Your task to perform on an android device: toggle pop-ups in chrome Image 0: 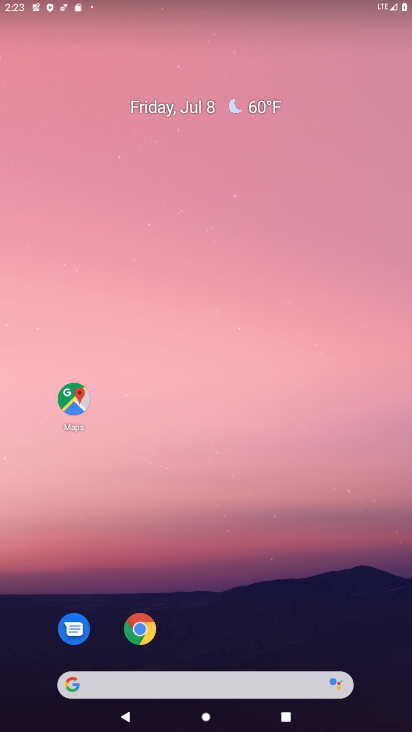
Step 0: click (219, 224)
Your task to perform on an android device: toggle pop-ups in chrome Image 1: 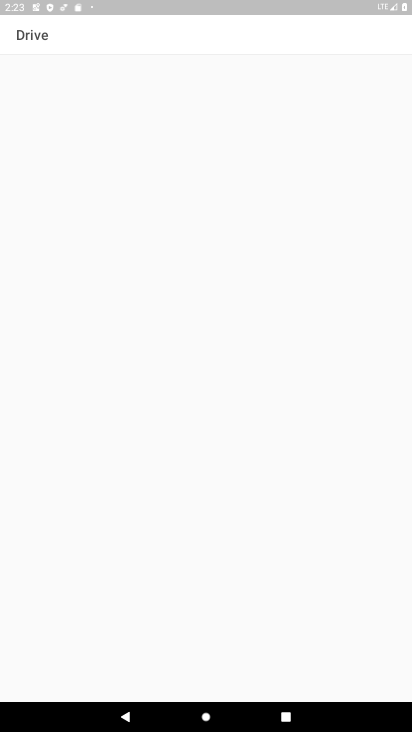
Step 1: press home button
Your task to perform on an android device: toggle pop-ups in chrome Image 2: 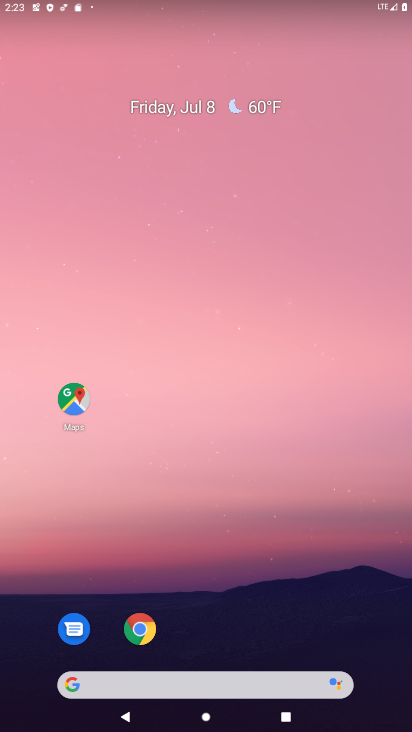
Step 2: click (155, 627)
Your task to perform on an android device: toggle pop-ups in chrome Image 3: 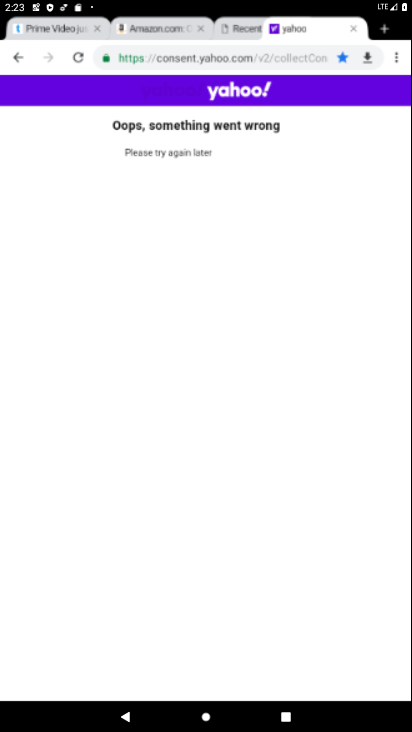
Step 3: click (396, 58)
Your task to perform on an android device: toggle pop-ups in chrome Image 4: 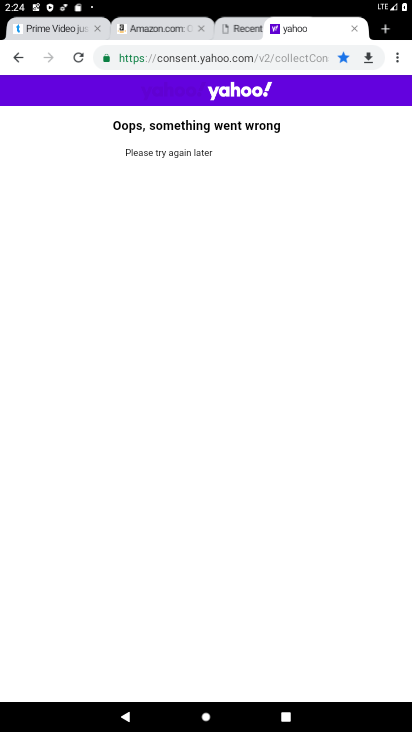
Step 4: click (390, 56)
Your task to perform on an android device: toggle pop-ups in chrome Image 5: 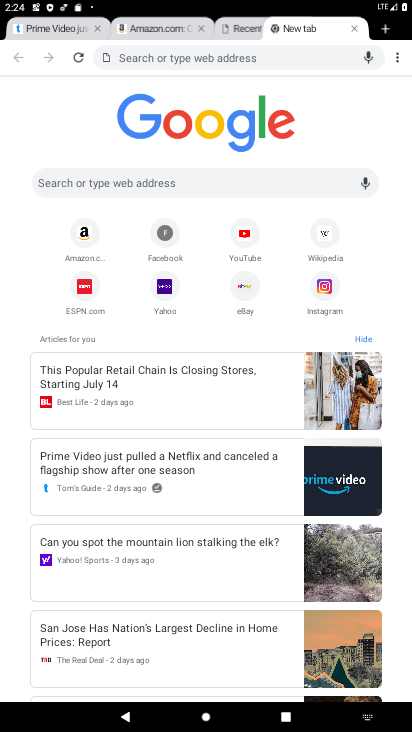
Step 5: drag from (396, 61) to (287, 266)
Your task to perform on an android device: toggle pop-ups in chrome Image 6: 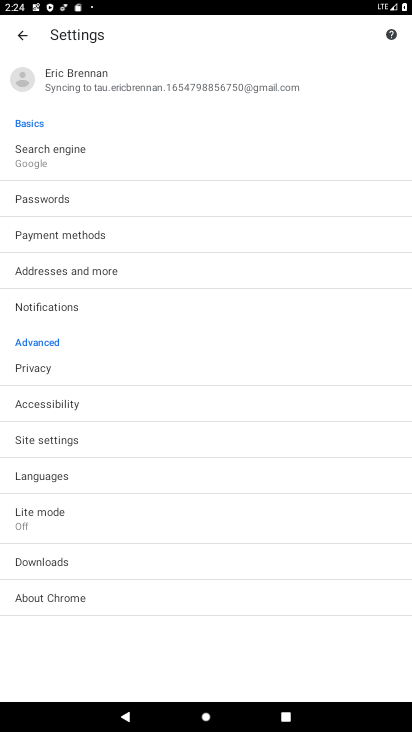
Step 6: click (95, 431)
Your task to perform on an android device: toggle pop-ups in chrome Image 7: 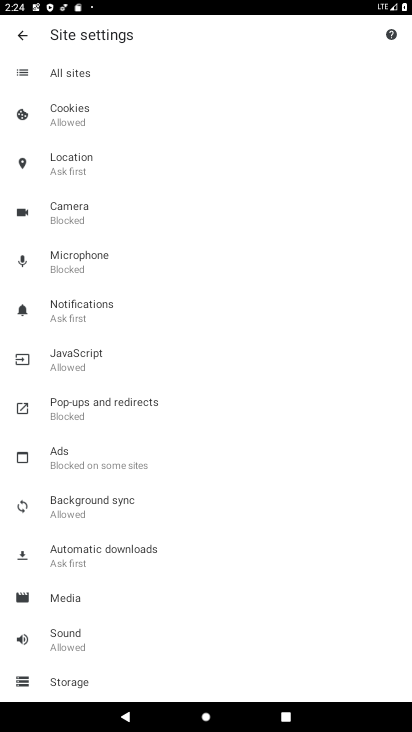
Step 7: click (127, 405)
Your task to perform on an android device: toggle pop-ups in chrome Image 8: 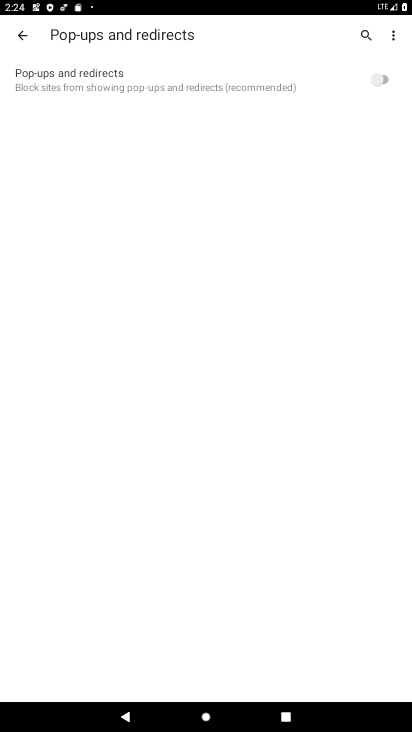
Step 8: click (382, 78)
Your task to perform on an android device: toggle pop-ups in chrome Image 9: 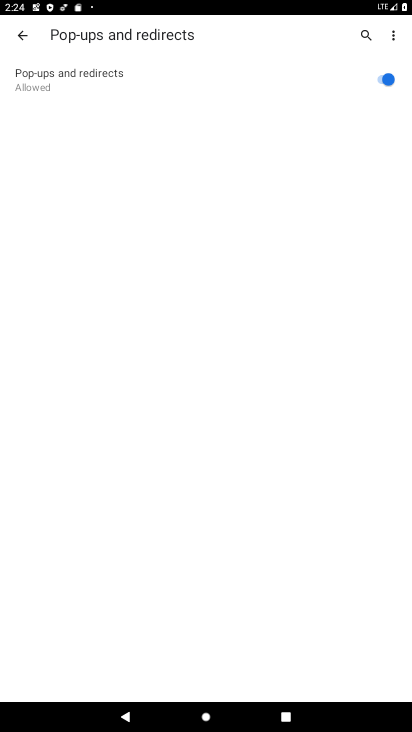
Step 9: task complete